Your task to perform on an android device: Go to wifi settings Image 0: 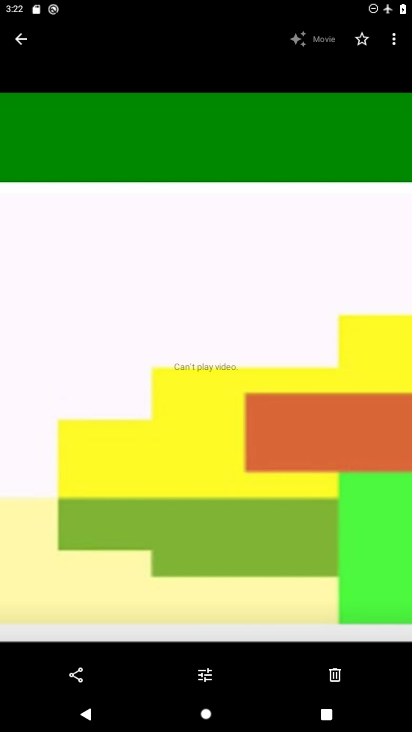
Step 0: press home button
Your task to perform on an android device: Go to wifi settings Image 1: 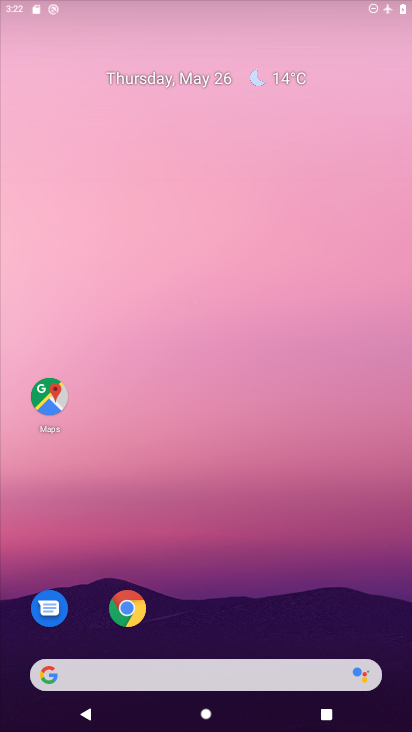
Step 1: drag from (297, 592) to (43, 1)
Your task to perform on an android device: Go to wifi settings Image 2: 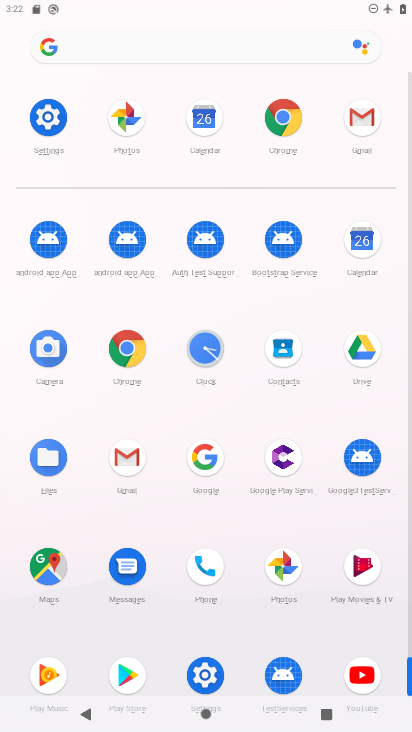
Step 2: click (43, 164)
Your task to perform on an android device: Go to wifi settings Image 3: 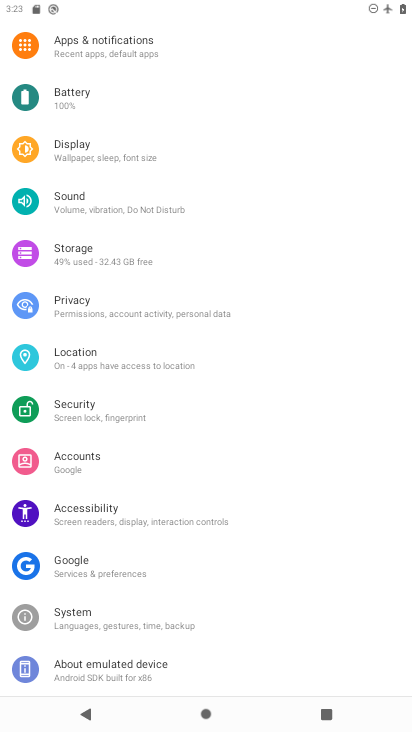
Step 3: drag from (128, 119) to (108, 621)
Your task to perform on an android device: Go to wifi settings Image 4: 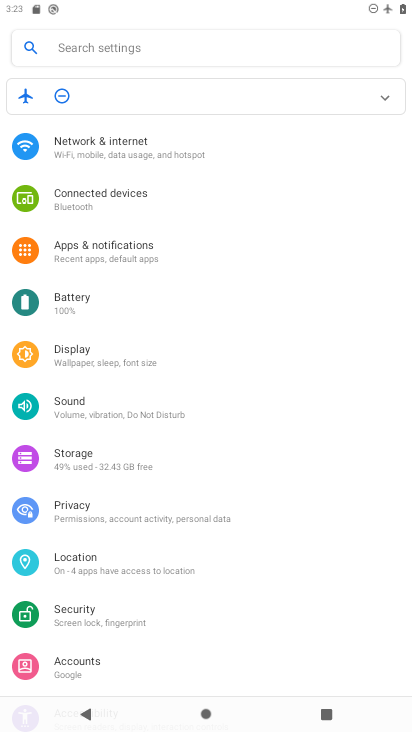
Step 4: click (126, 167)
Your task to perform on an android device: Go to wifi settings Image 5: 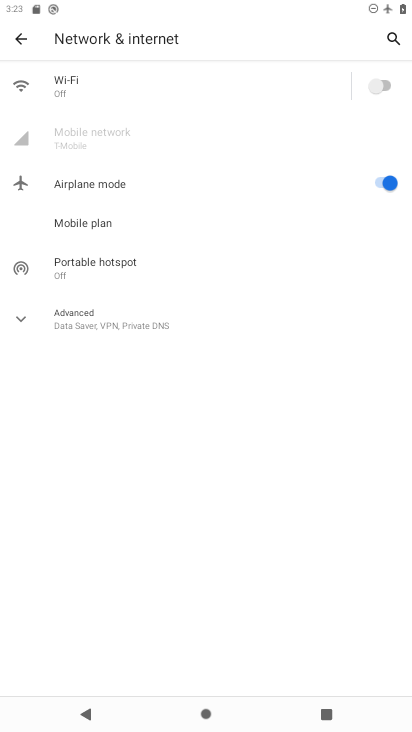
Step 5: click (69, 100)
Your task to perform on an android device: Go to wifi settings Image 6: 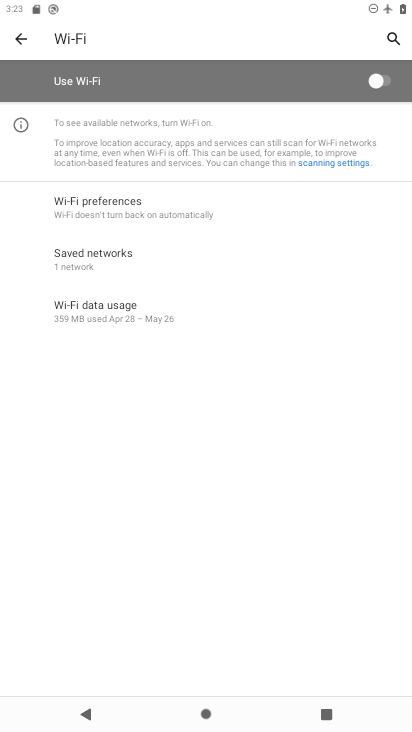
Step 6: task complete